Your task to perform on an android device: see creations saved in the google photos Image 0: 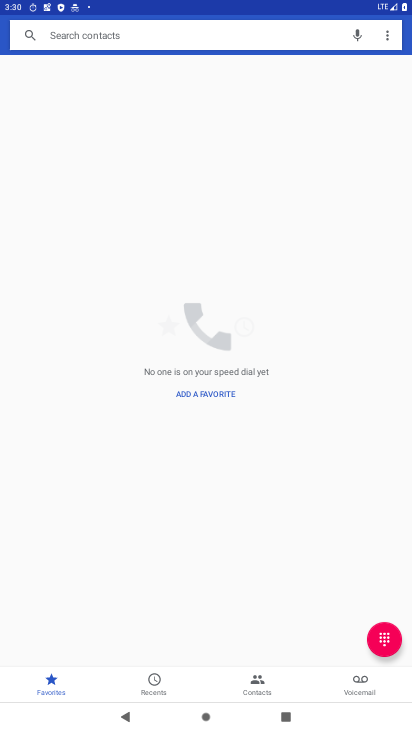
Step 0: press home button
Your task to perform on an android device: see creations saved in the google photos Image 1: 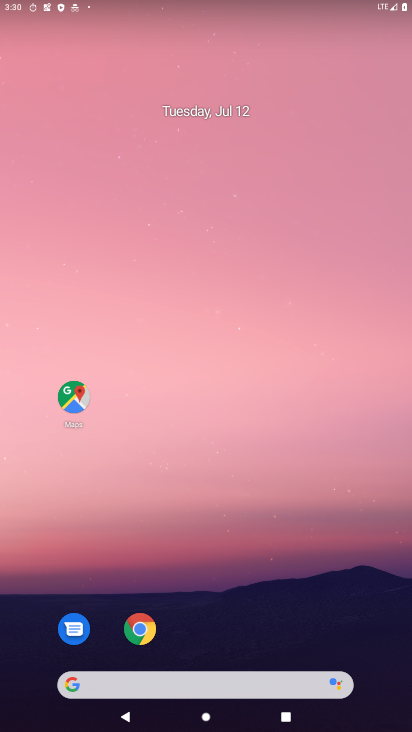
Step 1: click (326, 579)
Your task to perform on an android device: see creations saved in the google photos Image 2: 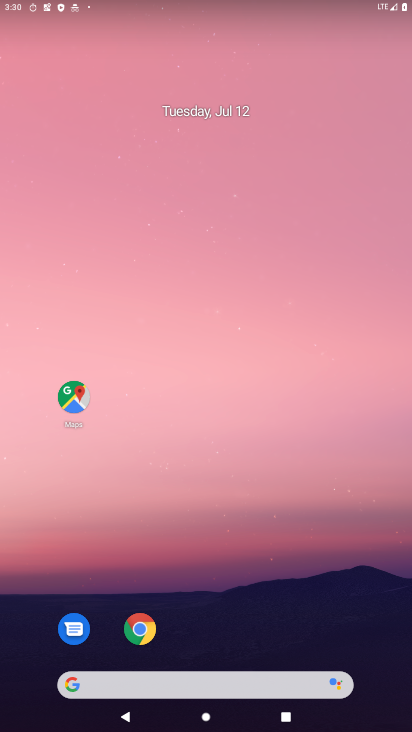
Step 2: drag from (220, 602) to (250, 124)
Your task to perform on an android device: see creations saved in the google photos Image 3: 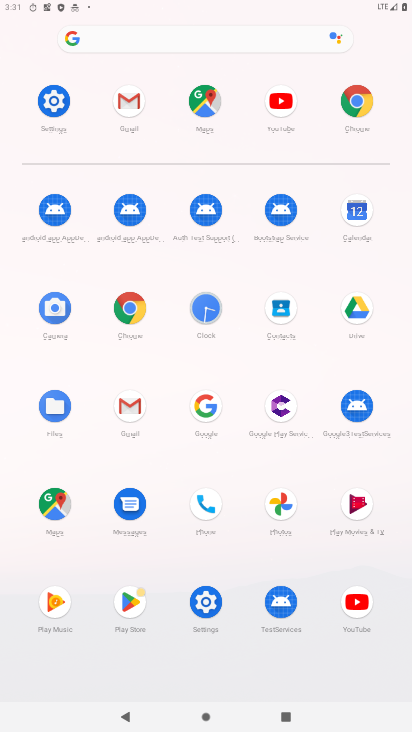
Step 3: click (277, 499)
Your task to perform on an android device: see creations saved in the google photos Image 4: 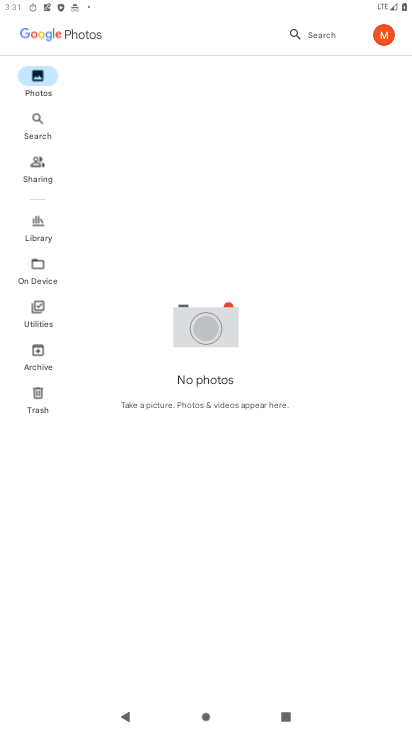
Step 4: click (300, 31)
Your task to perform on an android device: see creations saved in the google photos Image 5: 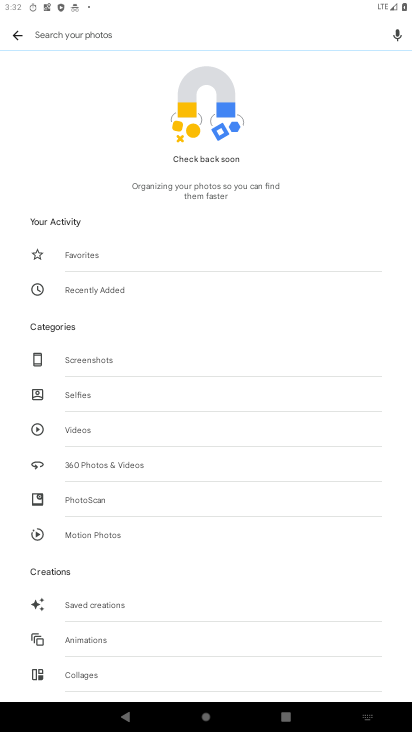
Step 5: click (102, 600)
Your task to perform on an android device: see creations saved in the google photos Image 6: 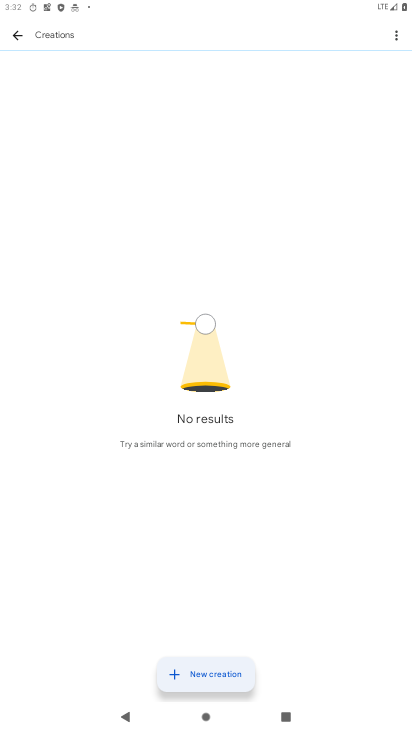
Step 6: task complete